Your task to perform on an android device: set the stopwatch Image 0: 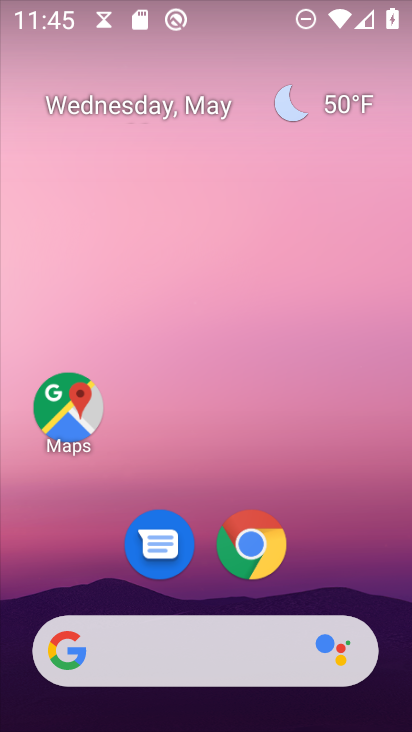
Step 0: drag from (231, 575) to (406, 20)
Your task to perform on an android device: set the stopwatch Image 1: 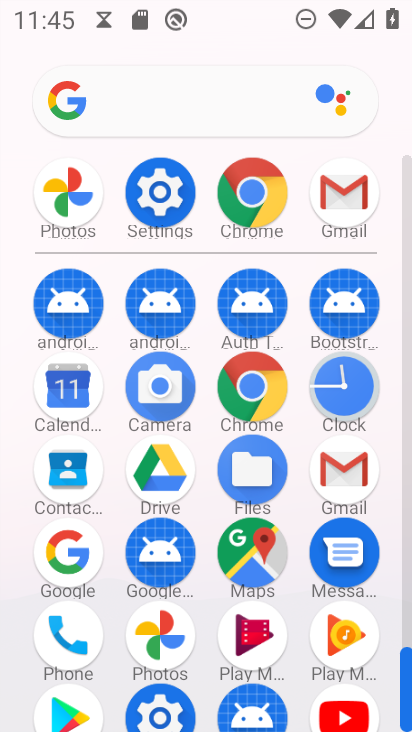
Step 1: click (337, 402)
Your task to perform on an android device: set the stopwatch Image 2: 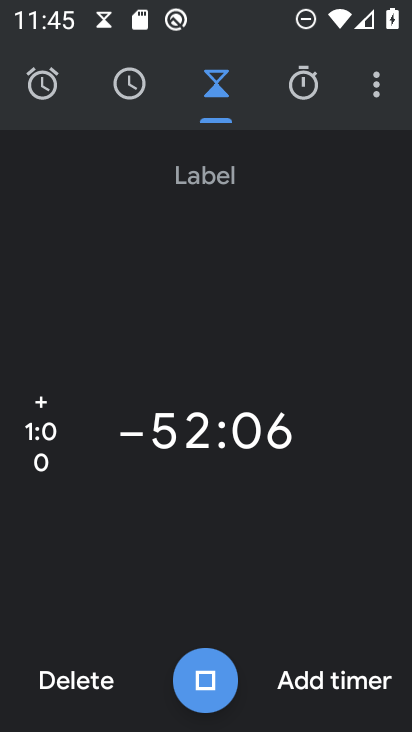
Step 2: click (293, 102)
Your task to perform on an android device: set the stopwatch Image 3: 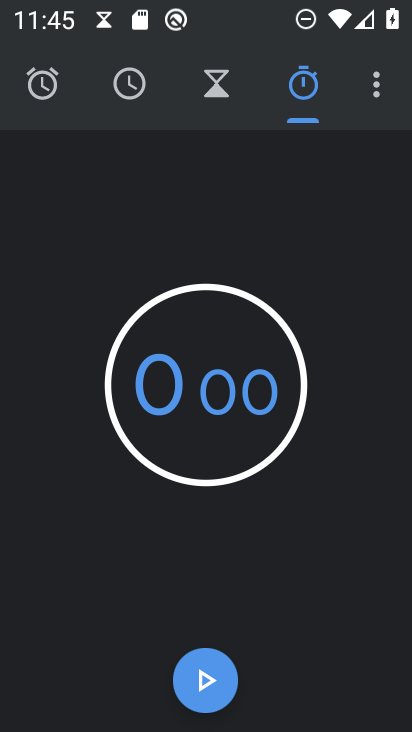
Step 3: click (209, 680)
Your task to perform on an android device: set the stopwatch Image 4: 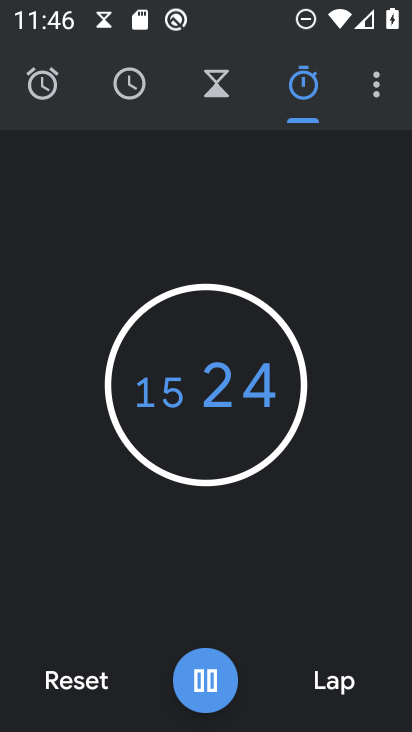
Step 4: task complete